Your task to perform on an android device: Open calendar and show me the second week of next month Image 0: 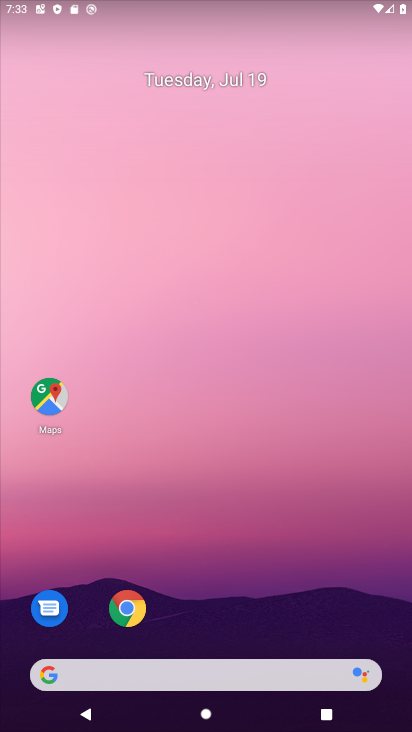
Step 0: drag from (181, 678) to (327, 235)
Your task to perform on an android device: Open calendar and show me the second week of next month Image 1: 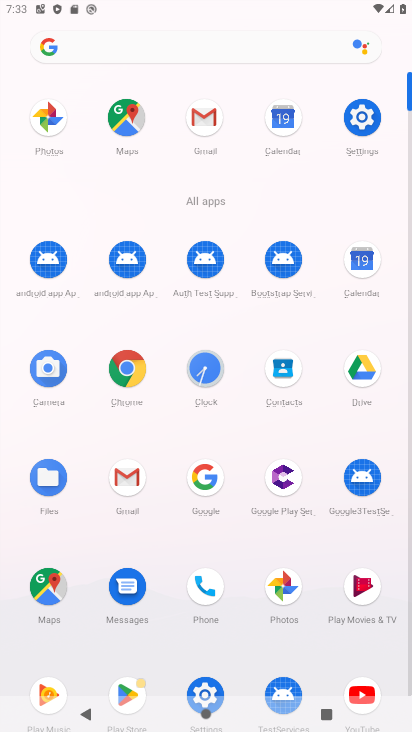
Step 1: click (363, 261)
Your task to perform on an android device: Open calendar and show me the second week of next month Image 2: 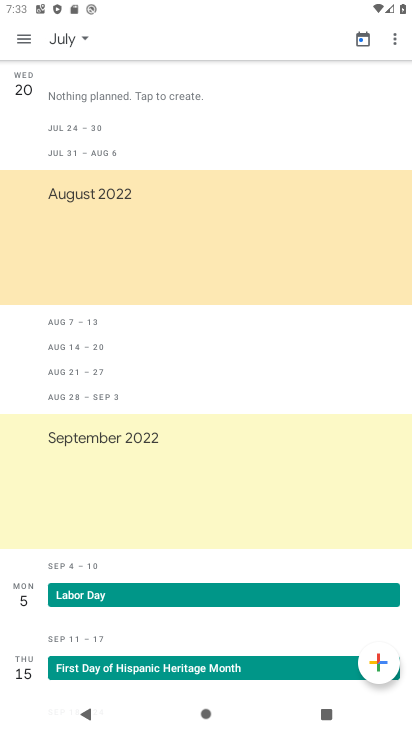
Step 2: click (62, 35)
Your task to perform on an android device: Open calendar and show me the second week of next month Image 3: 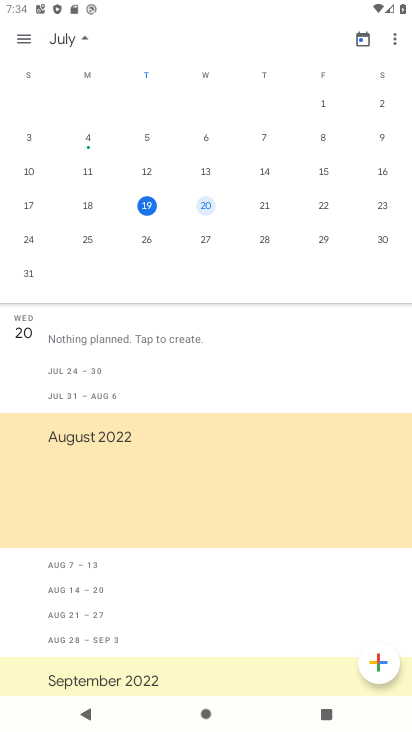
Step 3: drag from (349, 187) to (67, 82)
Your task to perform on an android device: Open calendar and show me the second week of next month Image 4: 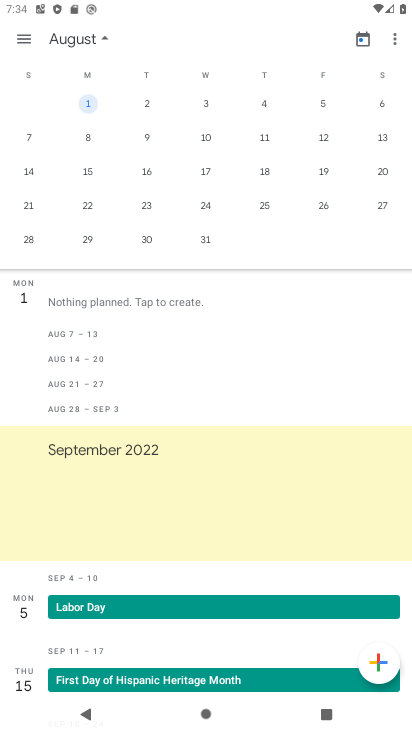
Step 4: click (33, 138)
Your task to perform on an android device: Open calendar and show me the second week of next month Image 5: 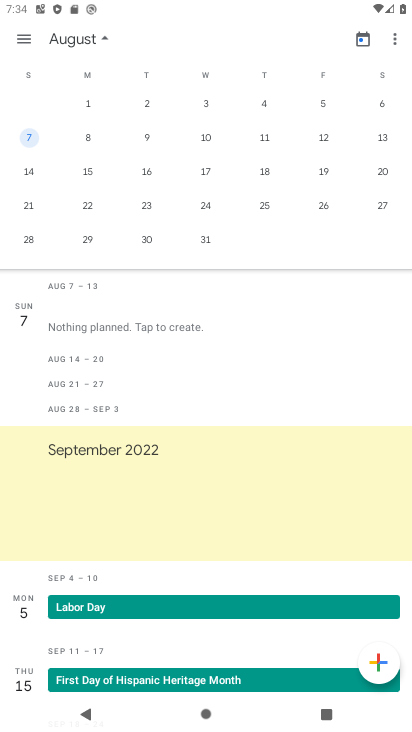
Step 5: click (24, 44)
Your task to perform on an android device: Open calendar and show me the second week of next month Image 6: 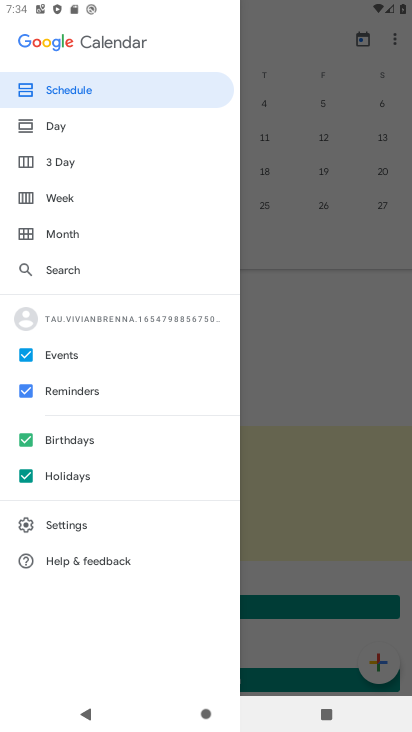
Step 6: click (53, 201)
Your task to perform on an android device: Open calendar and show me the second week of next month Image 7: 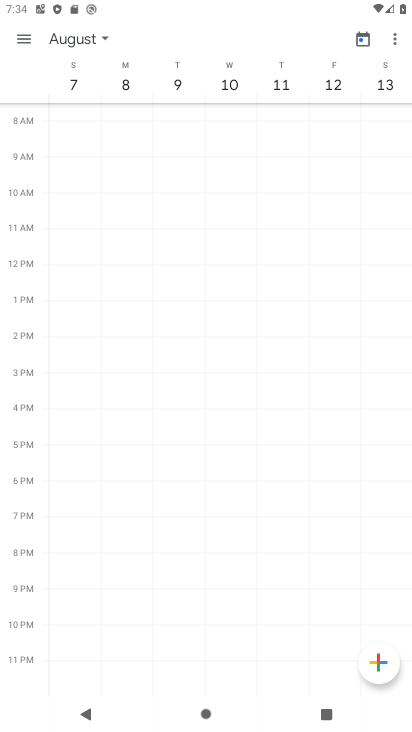
Step 7: task complete